Your task to perform on an android device: What is the news today? Image 0: 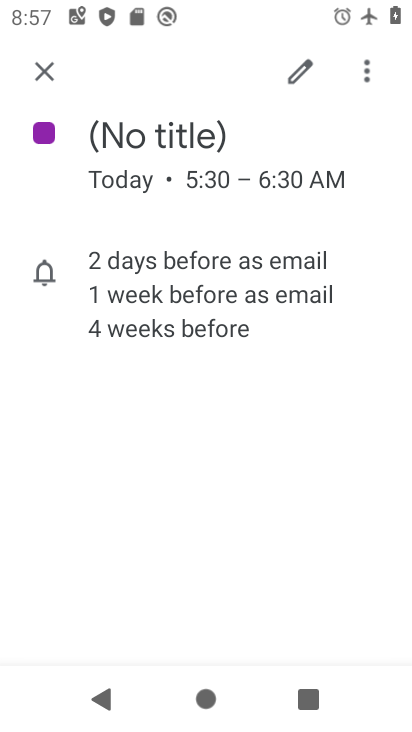
Step 0: press home button
Your task to perform on an android device: What is the news today? Image 1: 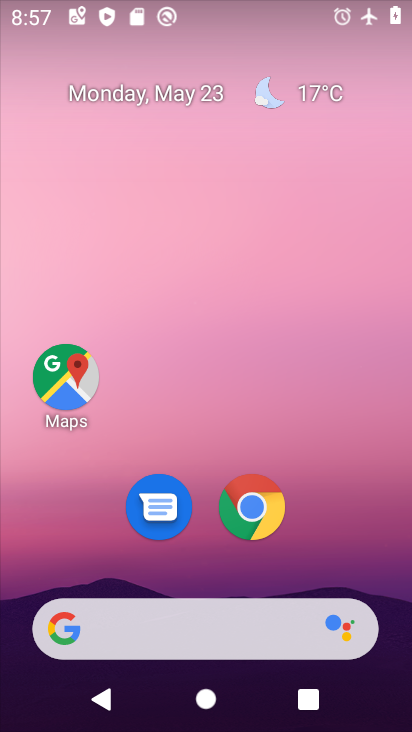
Step 1: click (113, 629)
Your task to perform on an android device: What is the news today? Image 2: 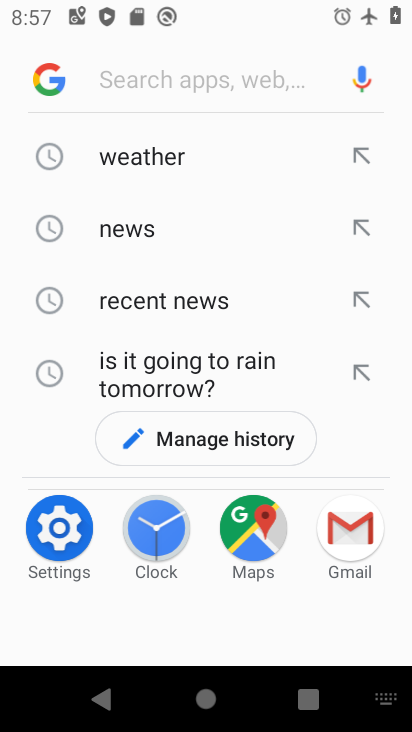
Step 2: click (144, 85)
Your task to perform on an android device: What is the news today? Image 3: 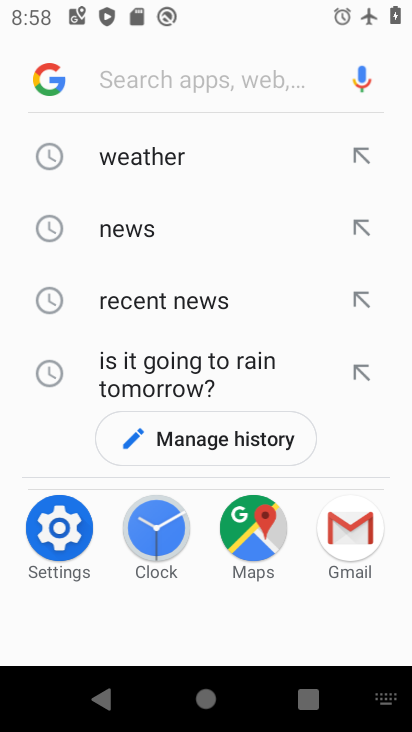
Step 3: type "today's news"
Your task to perform on an android device: What is the news today? Image 4: 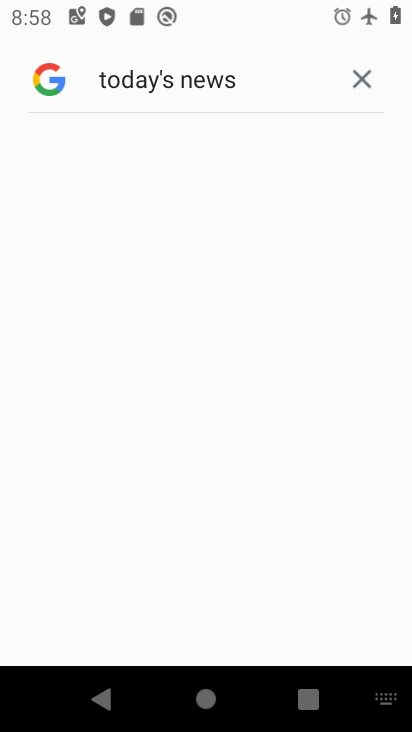
Step 4: click (232, 88)
Your task to perform on an android device: What is the news today? Image 5: 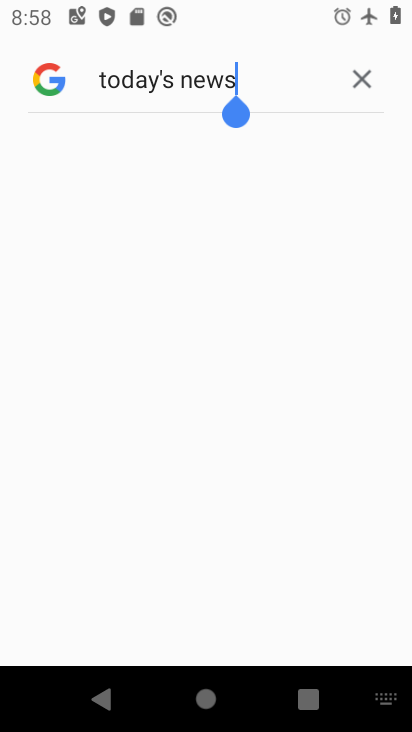
Step 5: click (167, 225)
Your task to perform on an android device: What is the news today? Image 6: 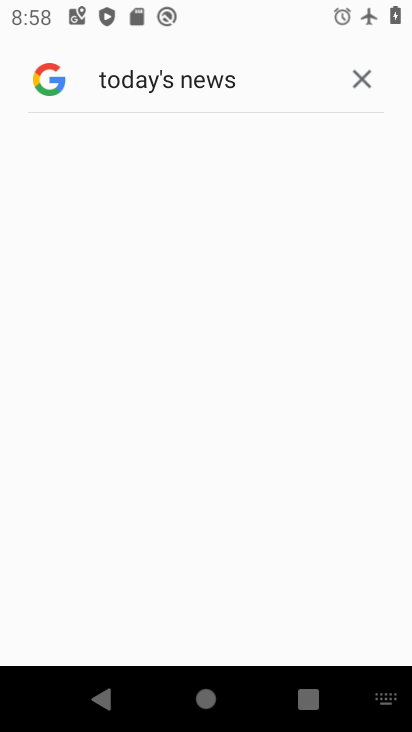
Step 6: task complete